Your task to perform on an android device: Go to Amazon Image 0: 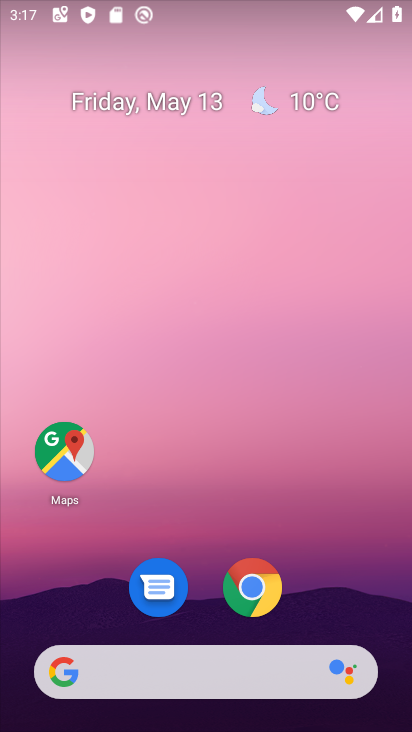
Step 0: click (256, 575)
Your task to perform on an android device: Go to Amazon Image 1: 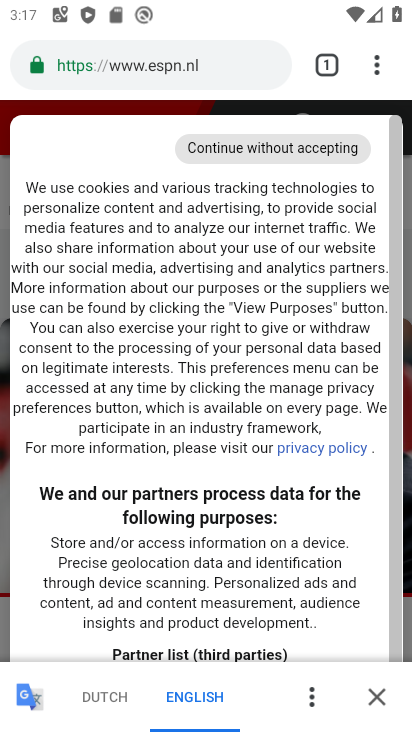
Step 1: click (137, 52)
Your task to perform on an android device: Go to Amazon Image 2: 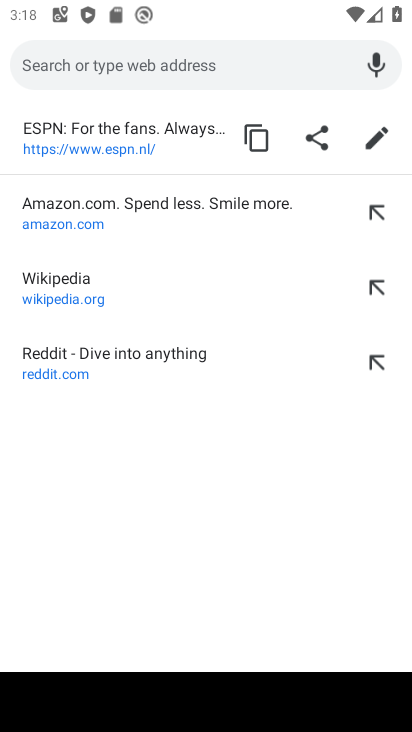
Step 2: type "amazon"
Your task to perform on an android device: Go to Amazon Image 3: 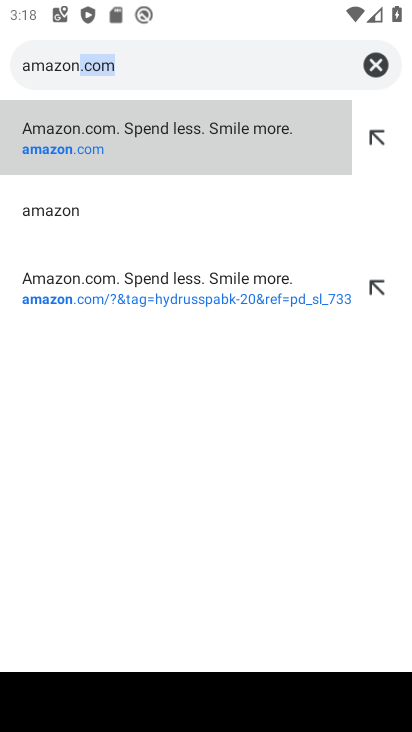
Step 3: click (125, 157)
Your task to perform on an android device: Go to Amazon Image 4: 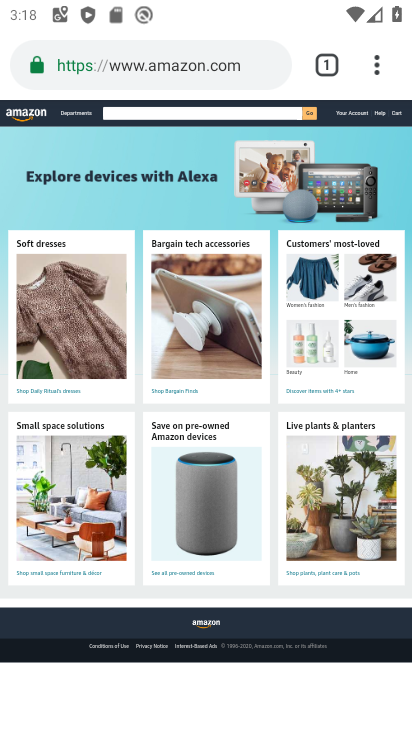
Step 4: task complete